Your task to perform on an android device: Go to network settings Image 0: 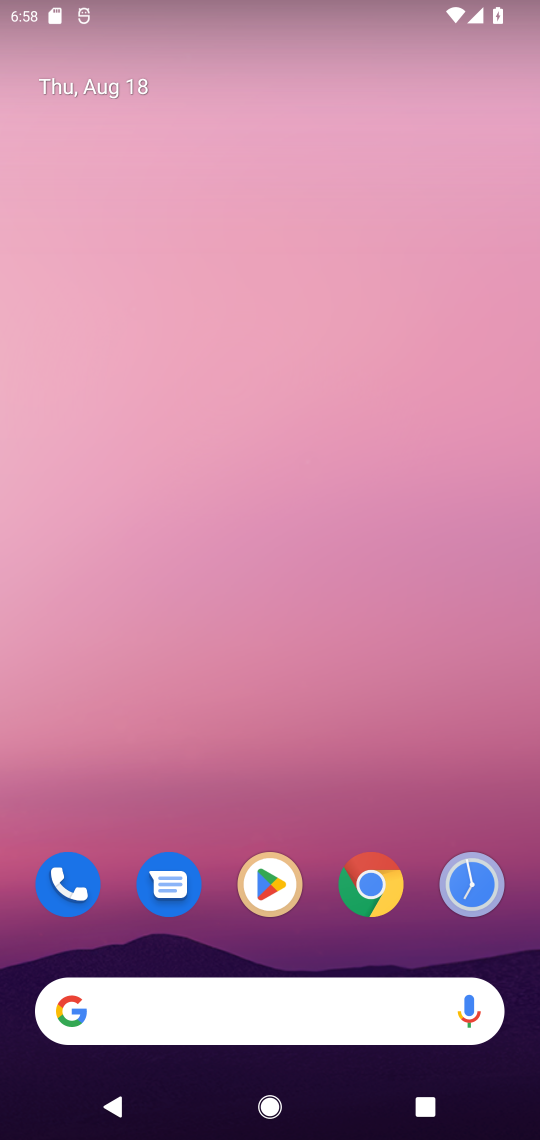
Step 0: drag from (370, 15) to (371, 798)
Your task to perform on an android device: Go to network settings Image 1: 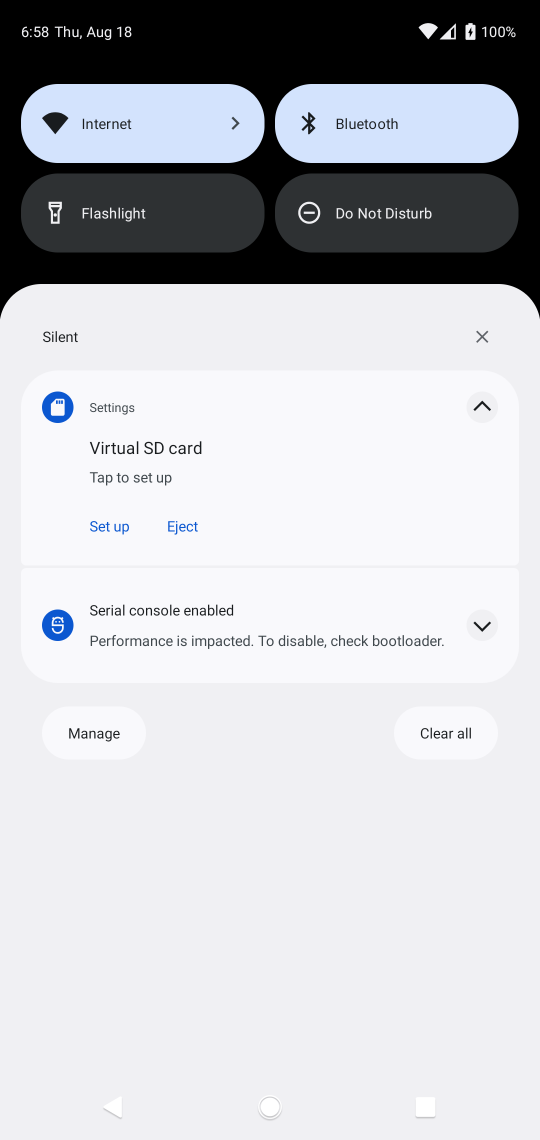
Step 1: click (174, 126)
Your task to perform on an android device: Go to network settings Image 2: 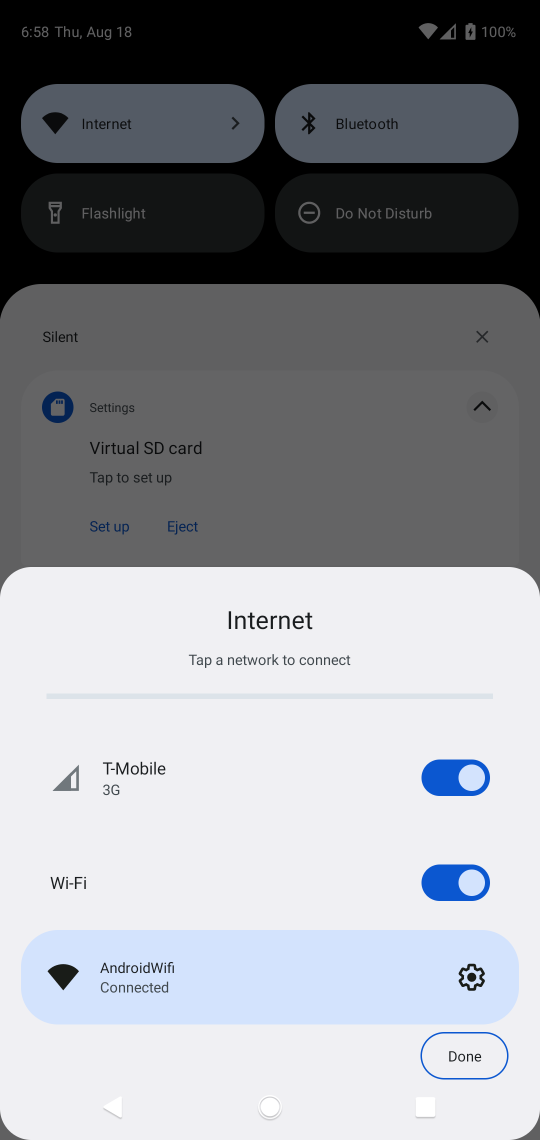
Step 2: click (473, 977)
Your task to perform on an android device: Go to network settings Image 3: 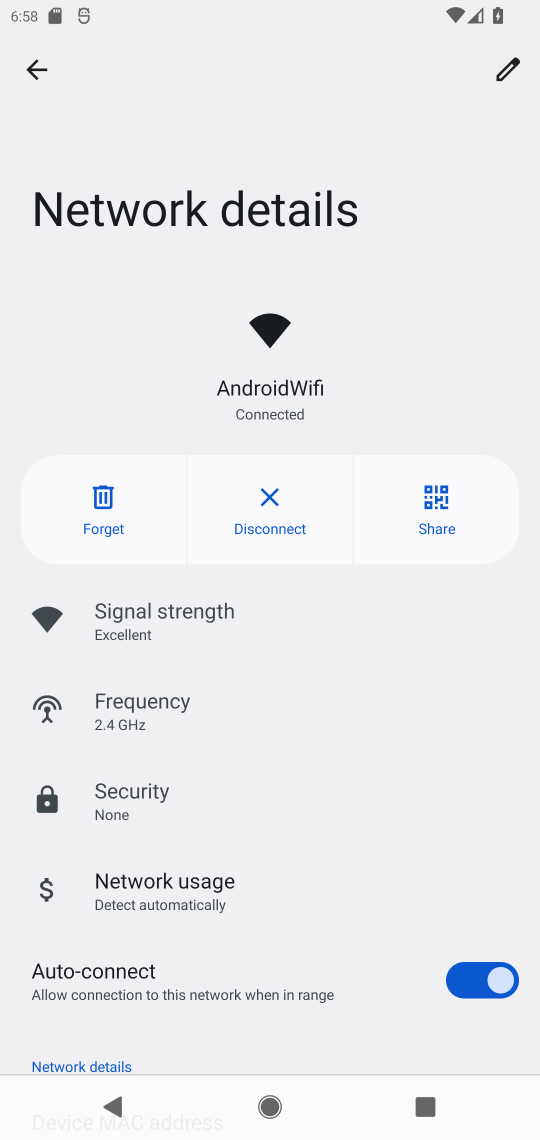
Step 3: task complete